Your task to perform on an android device: turn off notifications settings in the gmail app Image 0: 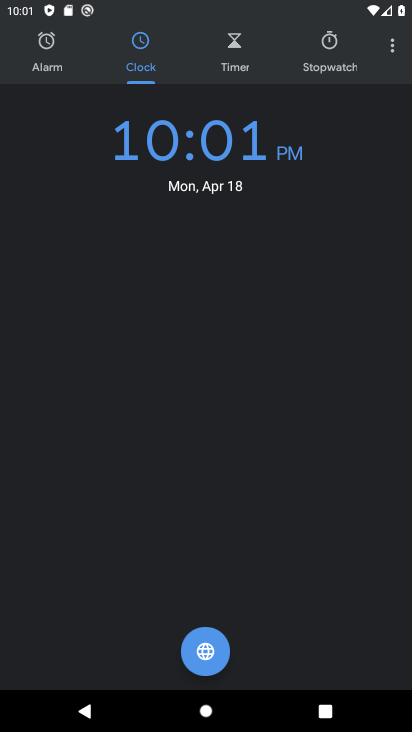
Step 0: press back button
Your task to perform on an android device: turn off notifications settings in the gmail app Image 1: 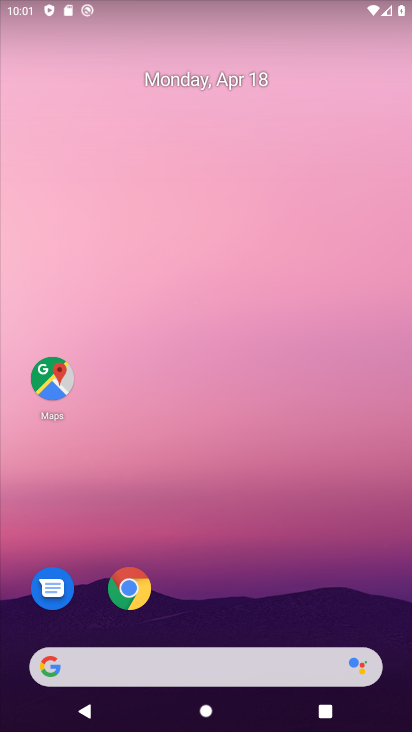
Step 1: drag from (216, 553) to (117, 41)
Your task to perform on an android device: turn off notifications settings in the gmail app Image 2: 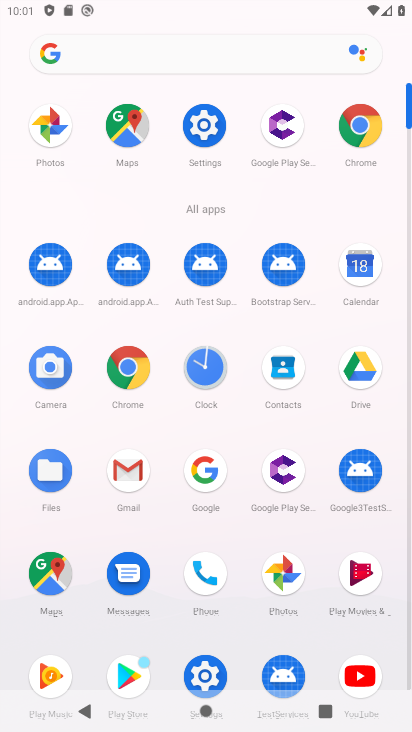
Step 2: click (126, 465)
Your task to perform on an android device: turn off notifications settings in the gmail app Image 3: 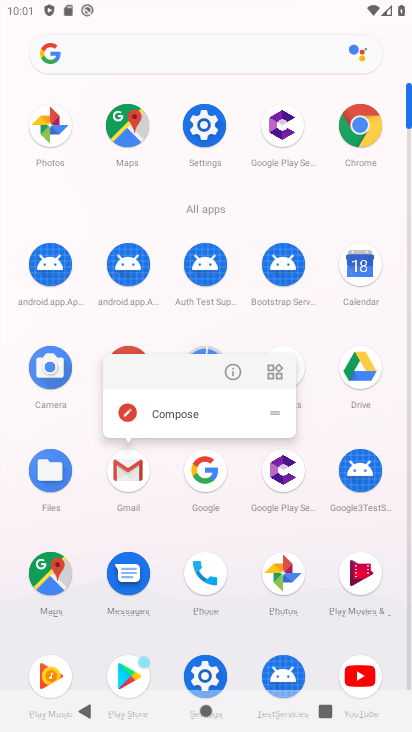
Step 3: click (127, 469)
Your task to perform on an android device: turn off notifications settings in the gmail app Image 4: 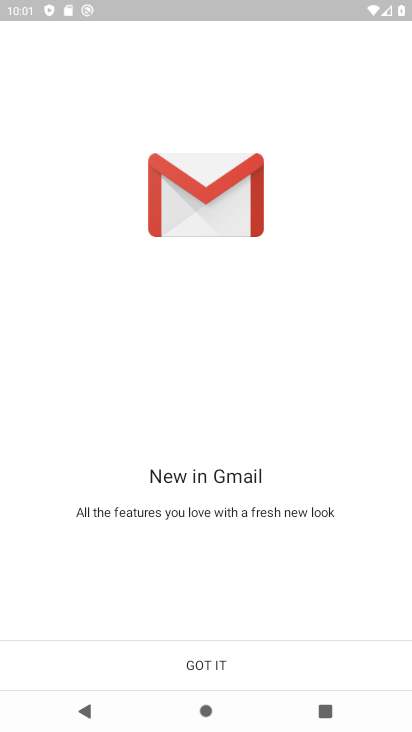
Step 4: click (182, 661)
Your task to perform on an android device: turn off notifications settings in the gmail app Image 5: 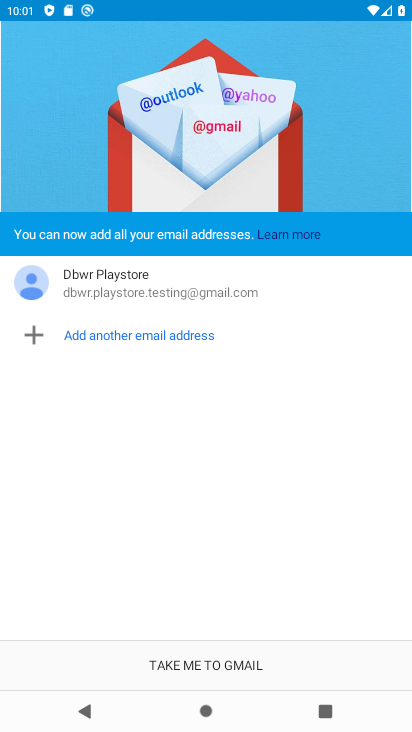
Step 5: click (199, 662)
Your task to perform on an android device: turn off notifications settings in the gmail app Image 6: 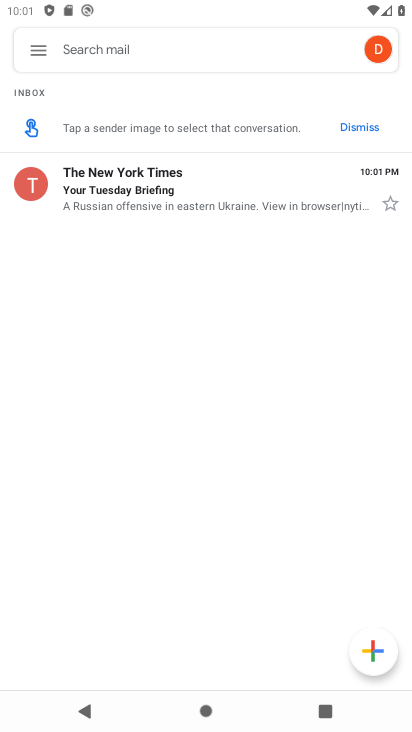
Step 6: click (36, 53)
Your task to perform on an android device: turn off notifications settings in the gmail app Image 7: 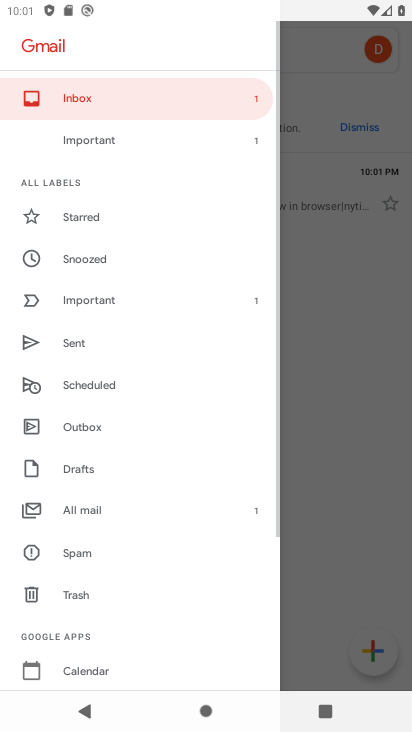
Step 7: drag from (151, 486) to (179, 117)
Your task to perform on an android device: turn off notifications settings in the gmail app Image 8: 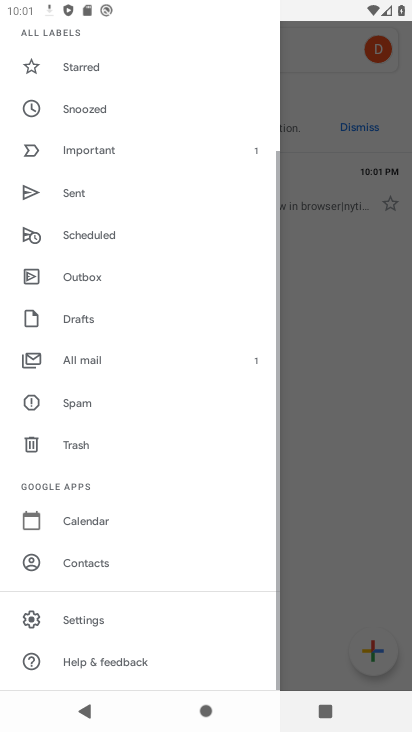
Step 8: click (81, 618)
Your task to perform on an android device: turn off notifications settings in the gmail app Image 9: 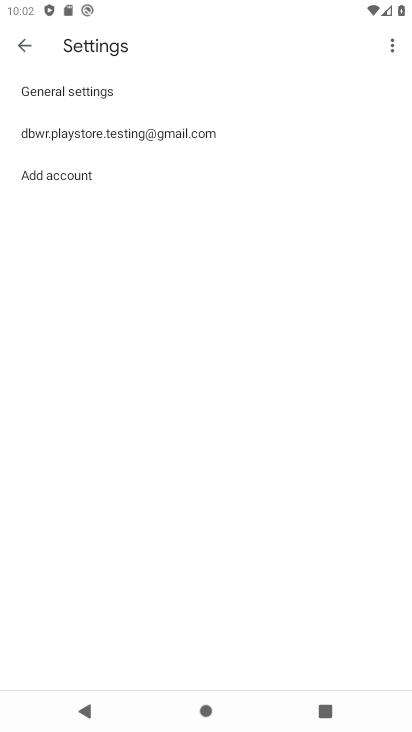
Step 9: click (140, 133)
Your task to perform on an android device: turn off notifications settings in the gmail app Image 10: 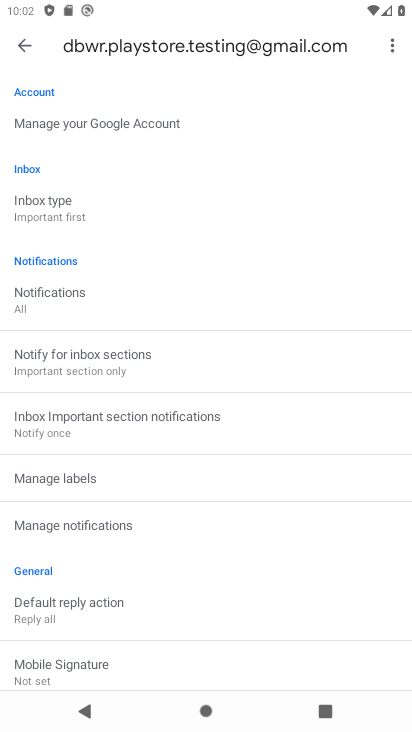
Step 10: click (135, 525)
Your task to perform on an android device: turn off notifications settings in the gmail app Image 11: 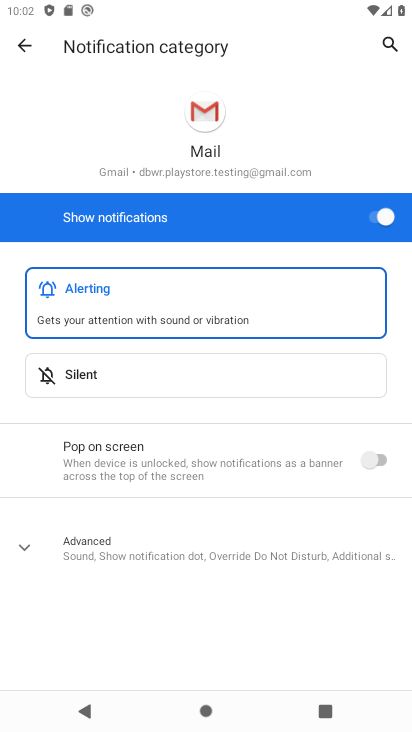
Step 11: click (384, 212)
Your task to perform on an android device: turn off notifications settings in the gmail app Image 12: 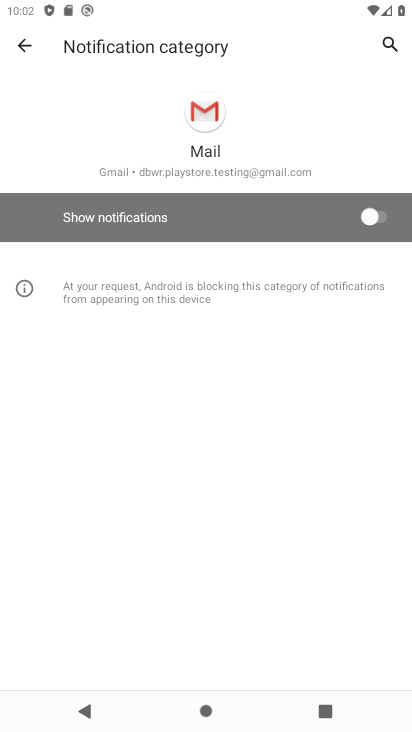
Step 12: task complete